Your task to perform on an android device: Go to Google maps Image 0: 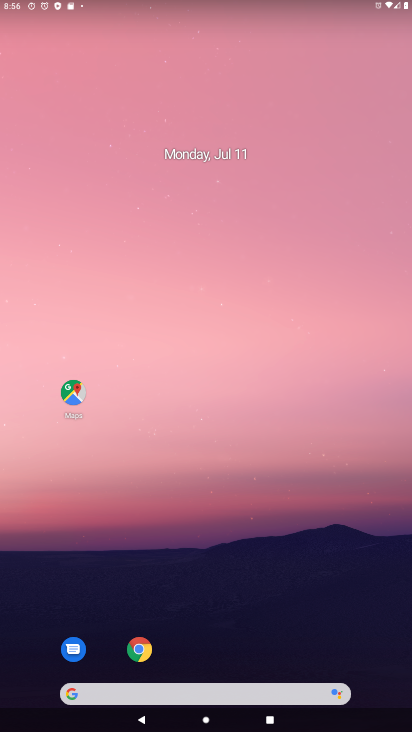
Step 0: click (75, 390)
Your task to perform on an android device: Go to Google maps Image 1: 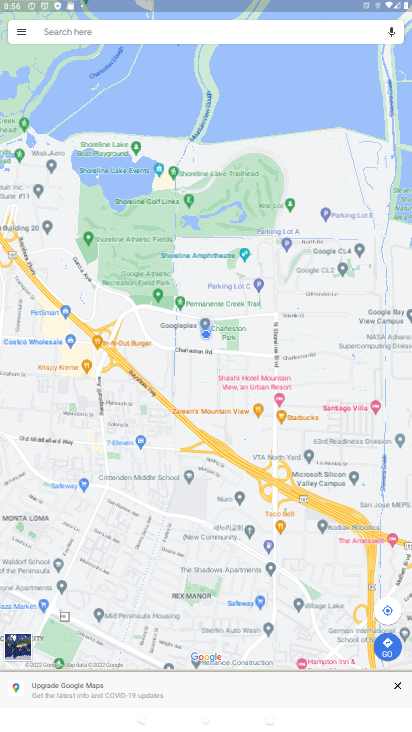
Step 1: task complete